Your task to perform on an android device: View the shopping cart on amazon.com. Image 0: 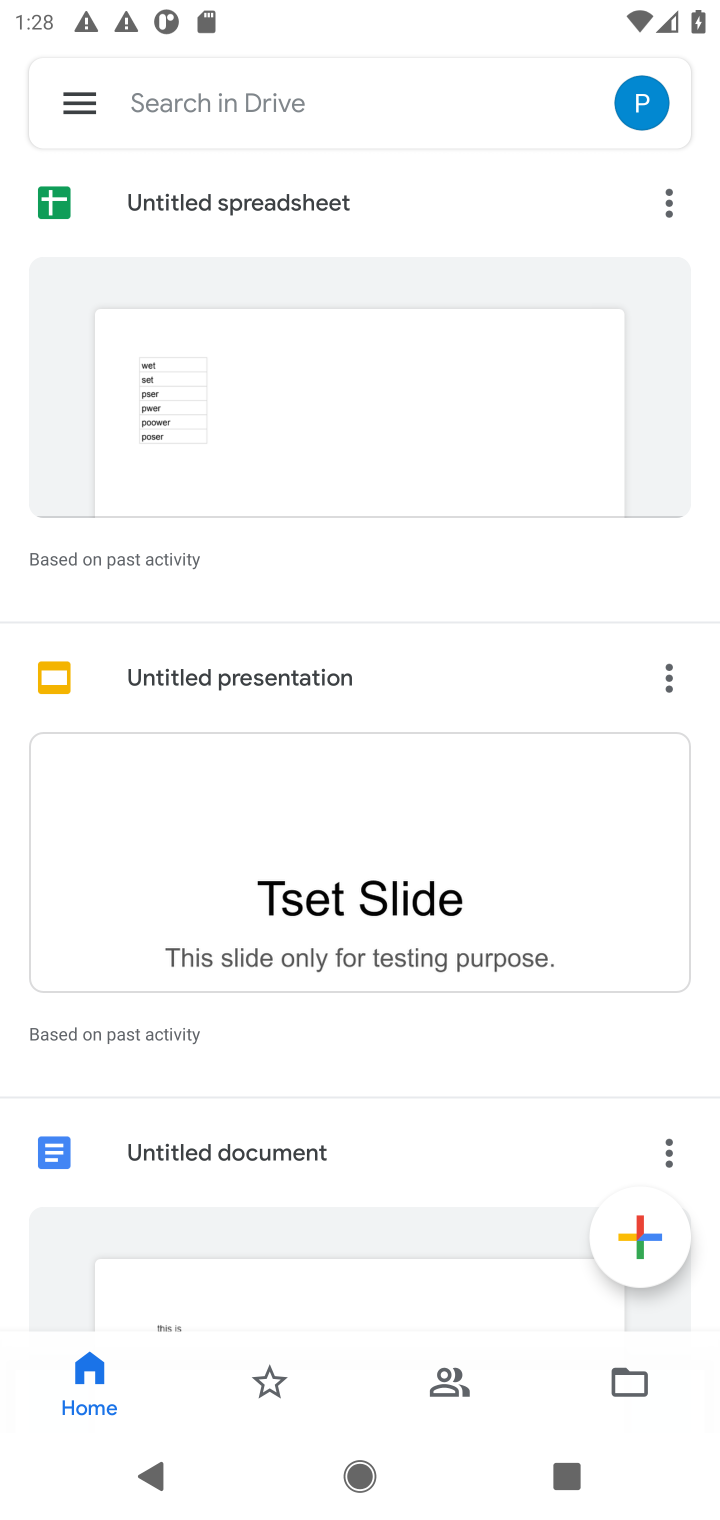
Step 0: press home button
Your task to perform on an android device: View the shopping cart on amazon.com. Image 1: 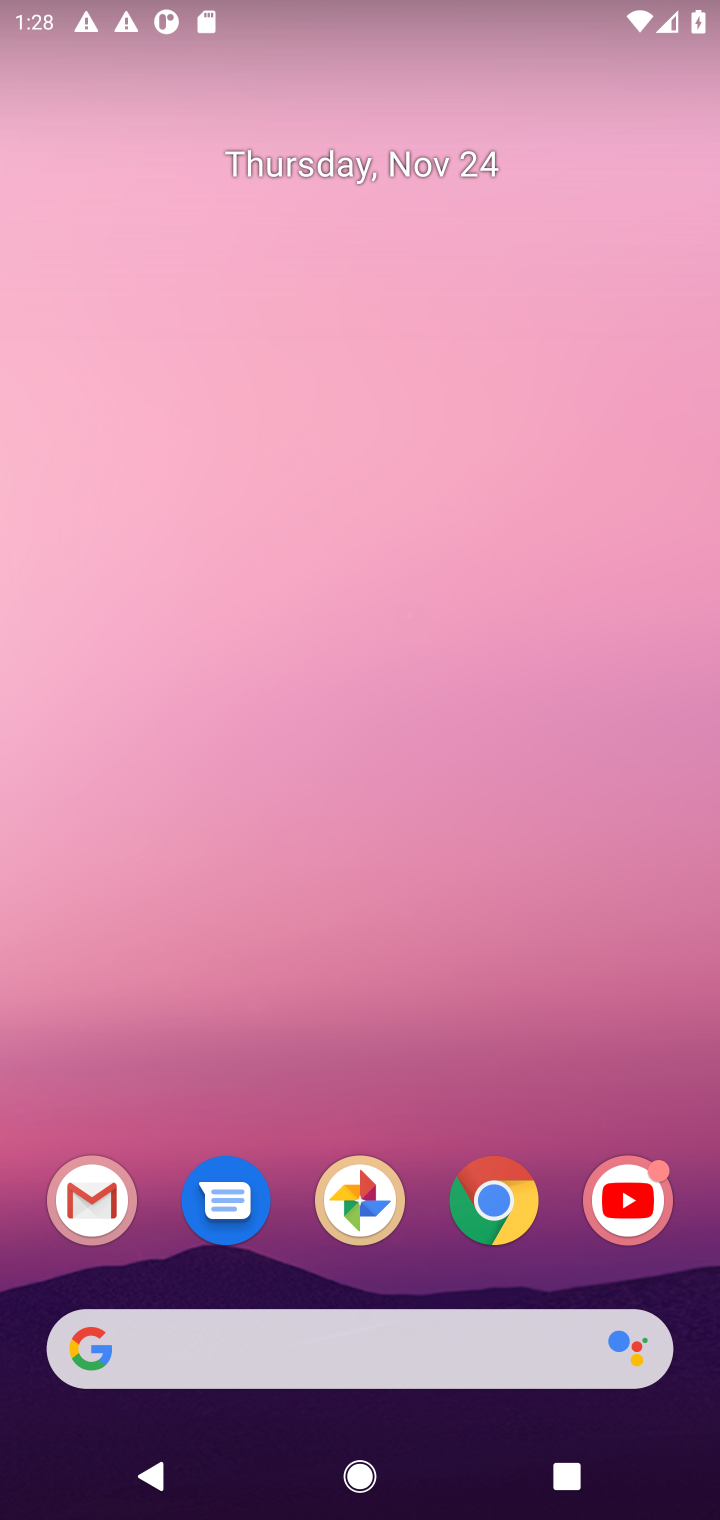
Step 1: click (294, 1387)
Your task to perform on an android device: View the shopping cart on amazon.com. Image 2: 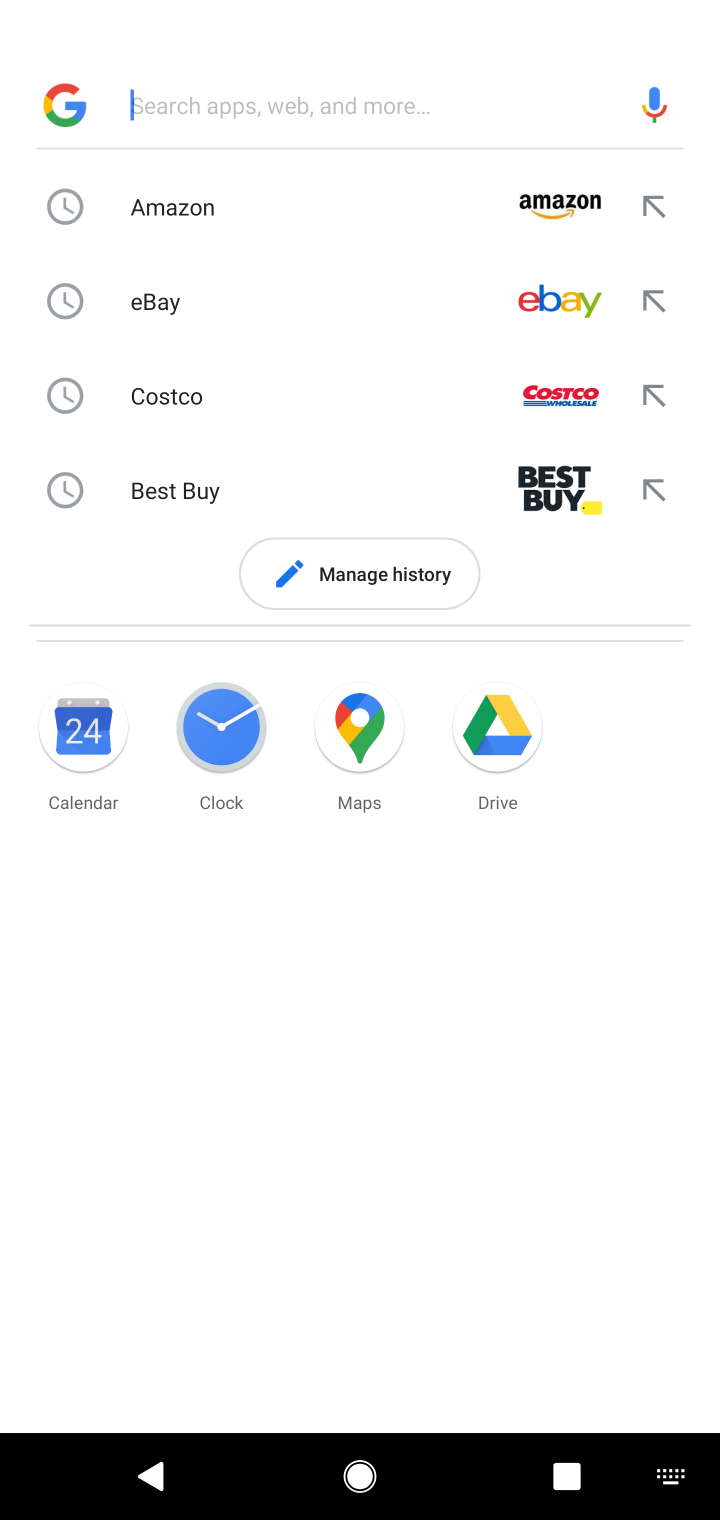
Step 2: type "amazon"
Your task to perform on an android device: View the shopping cart on amazon.com. Image 3: 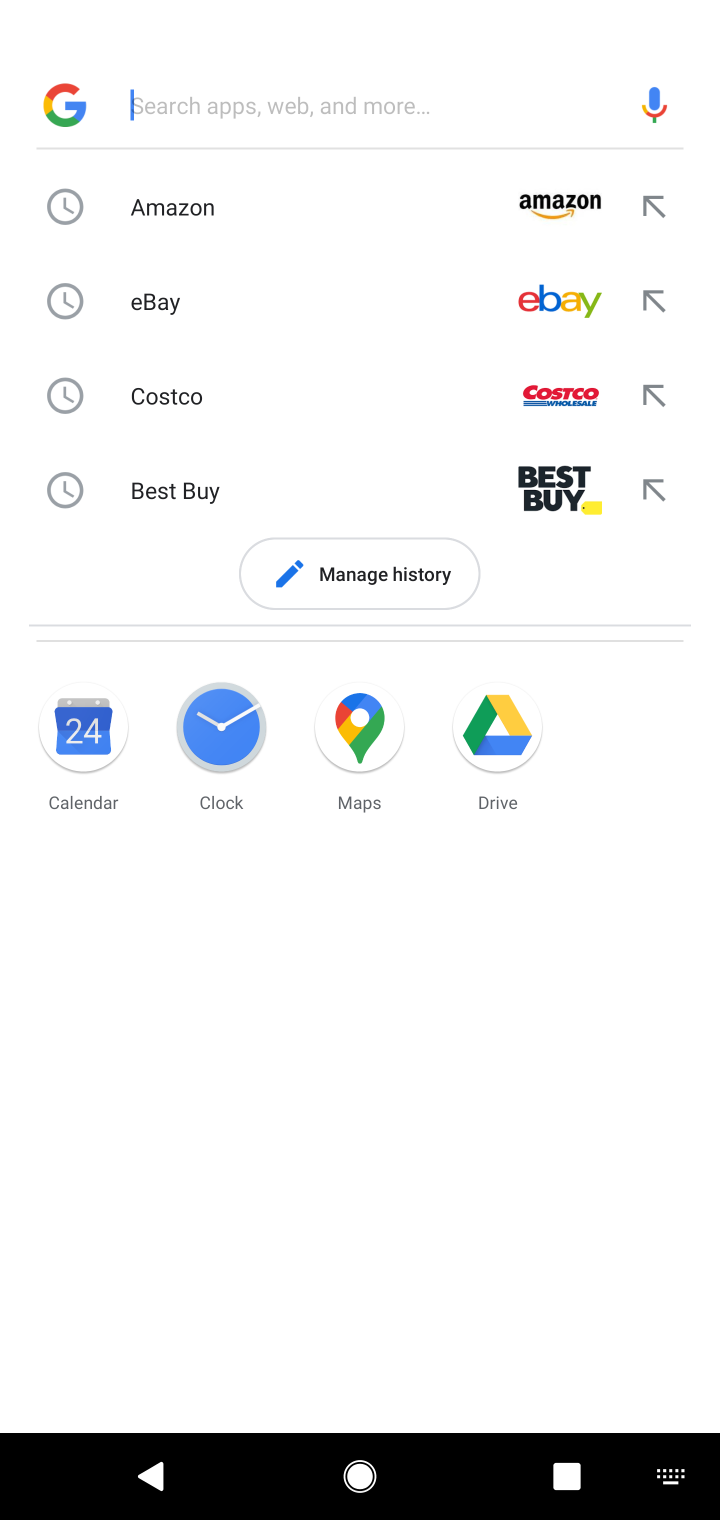
Step 3: click (474, 167)
Your task to perform on an android device: View the shopping cart on amazon.com. Image 4: 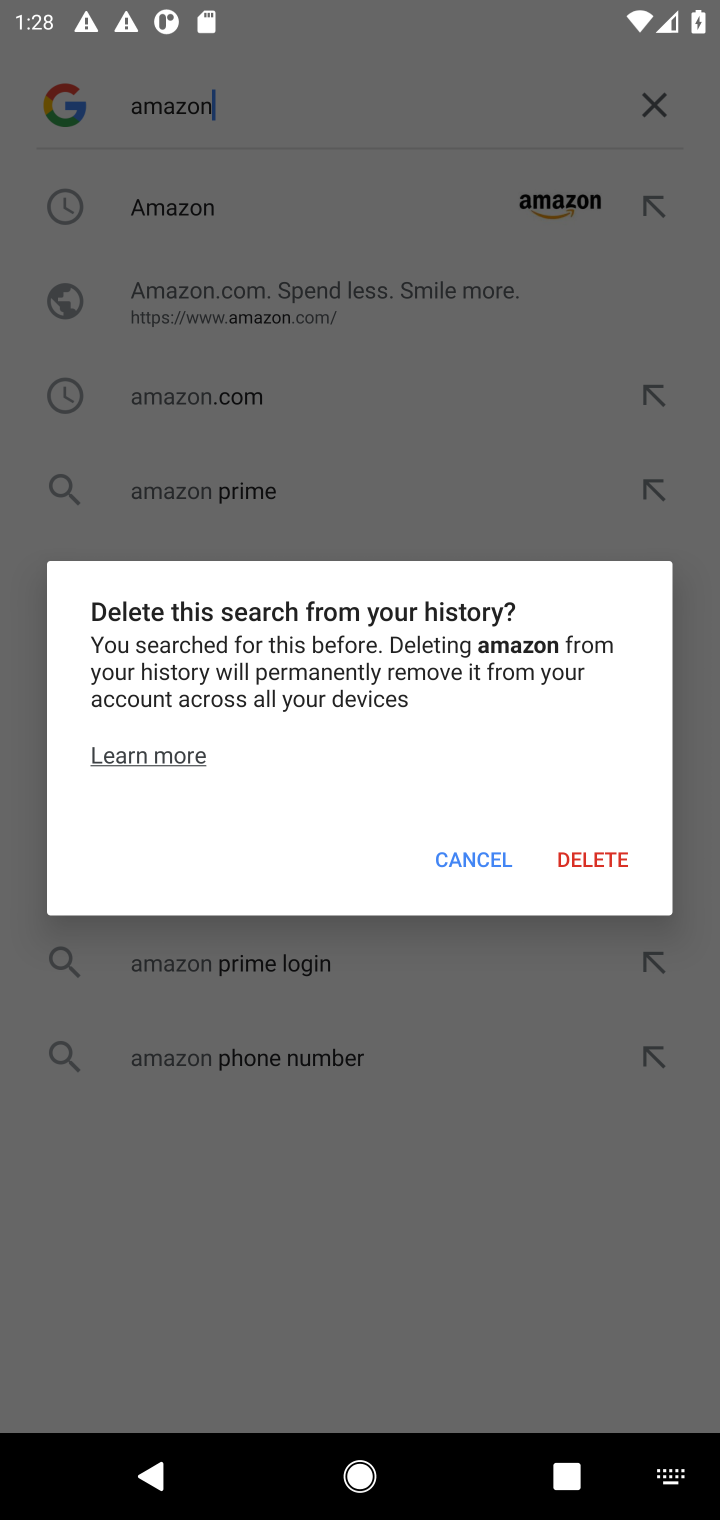
Step 4: press home button
Your task to perform on an android device: View the shopping cart on amazon.com. Image 5: 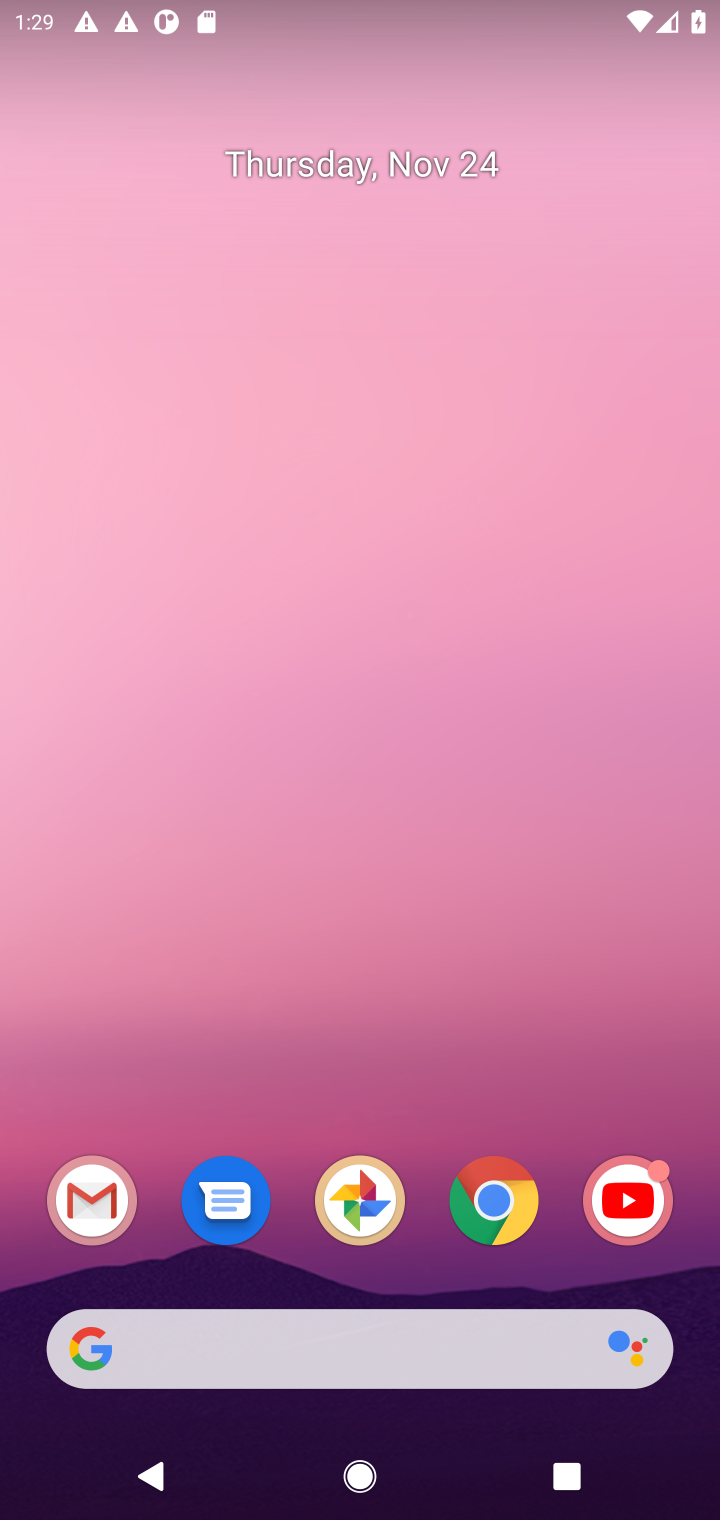
Step 5: click (513, 1309)
Your task to perform on an android device: View the shopping cart on amazon.com. Image 6: 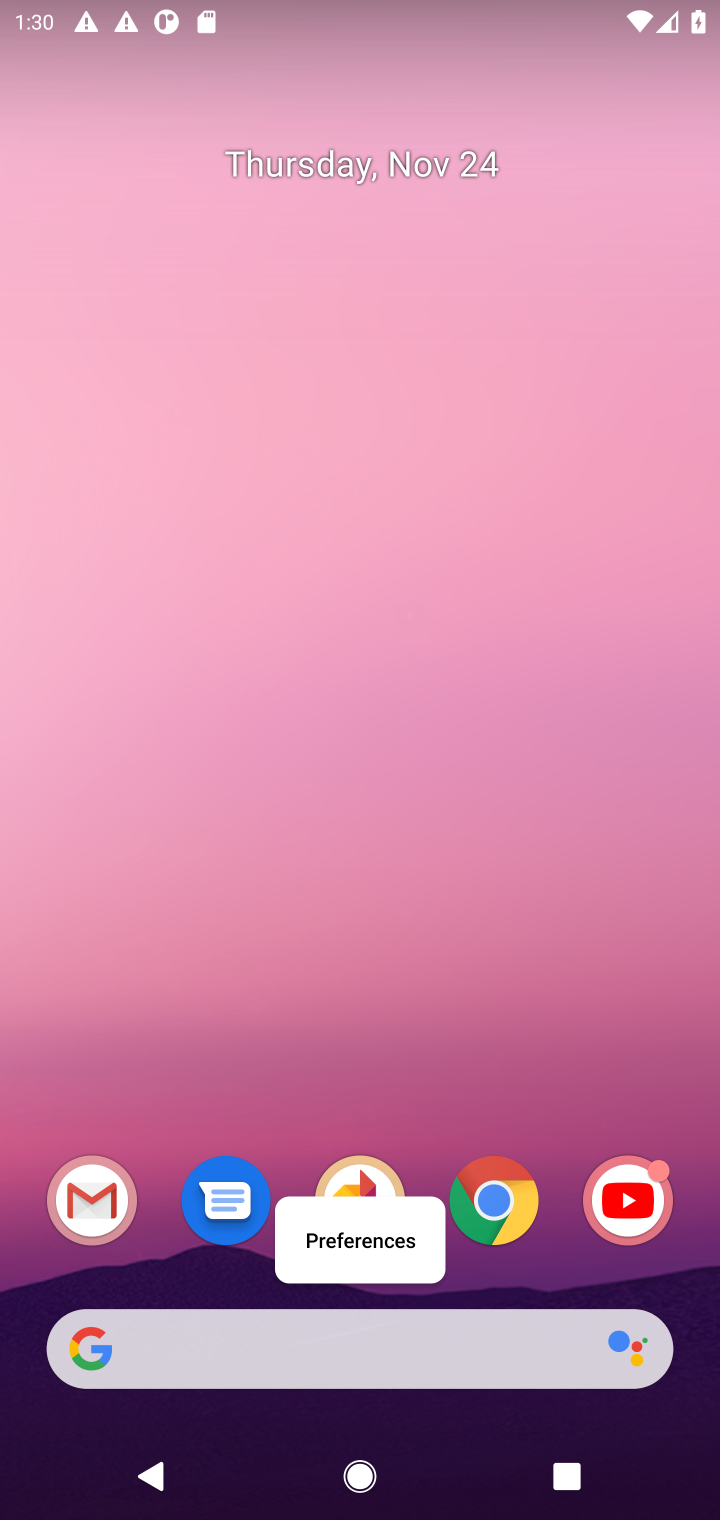
Step 6: click (451, 1323)
Your task to perform on an android device: View the shopping cart on amazon.com. Image 7: 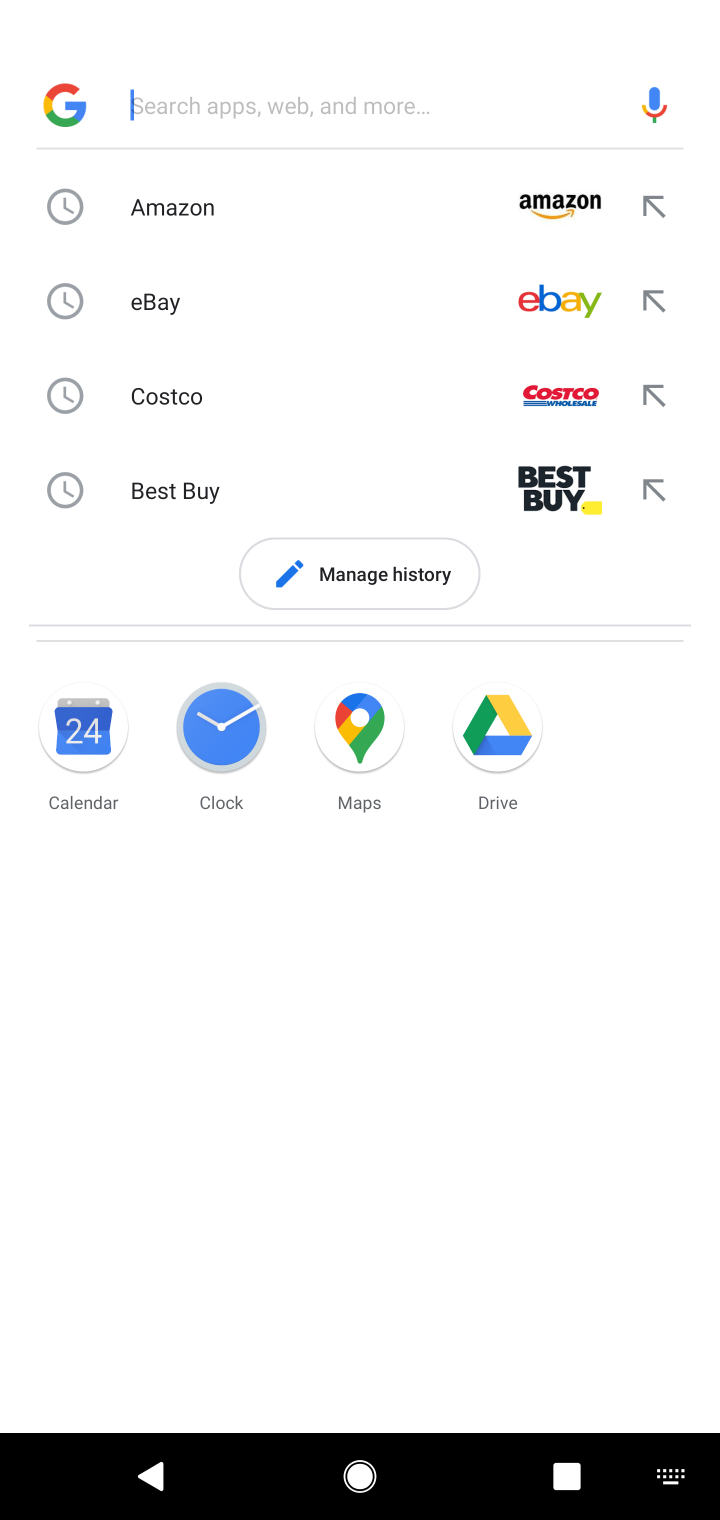
Step 7: click (206, 215)
Your task to perform on an android device: View the shopping cart on amazon.com. Image 8: 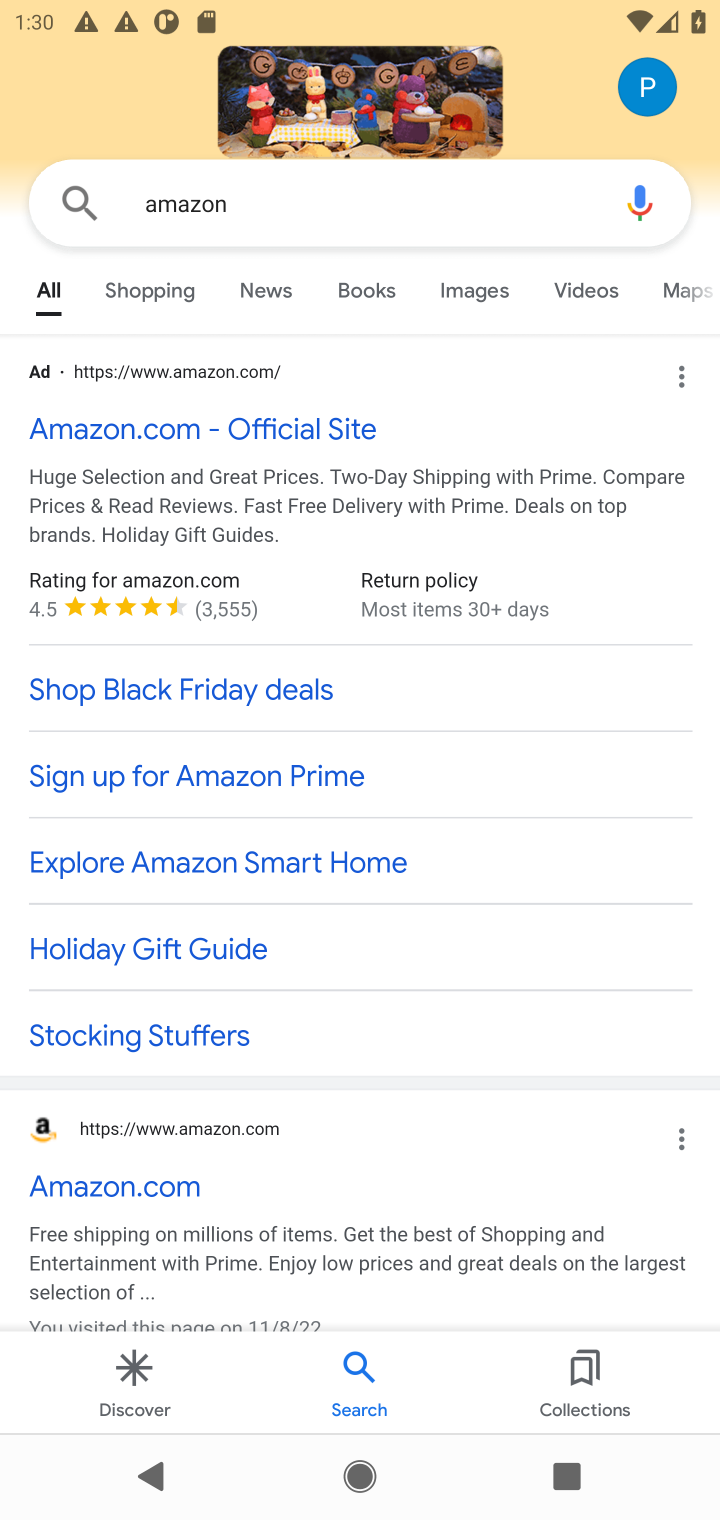
Step 8: click (134, 422)
Your task to perform on an android device: View the shopping cart on amazon.com. Image 9: 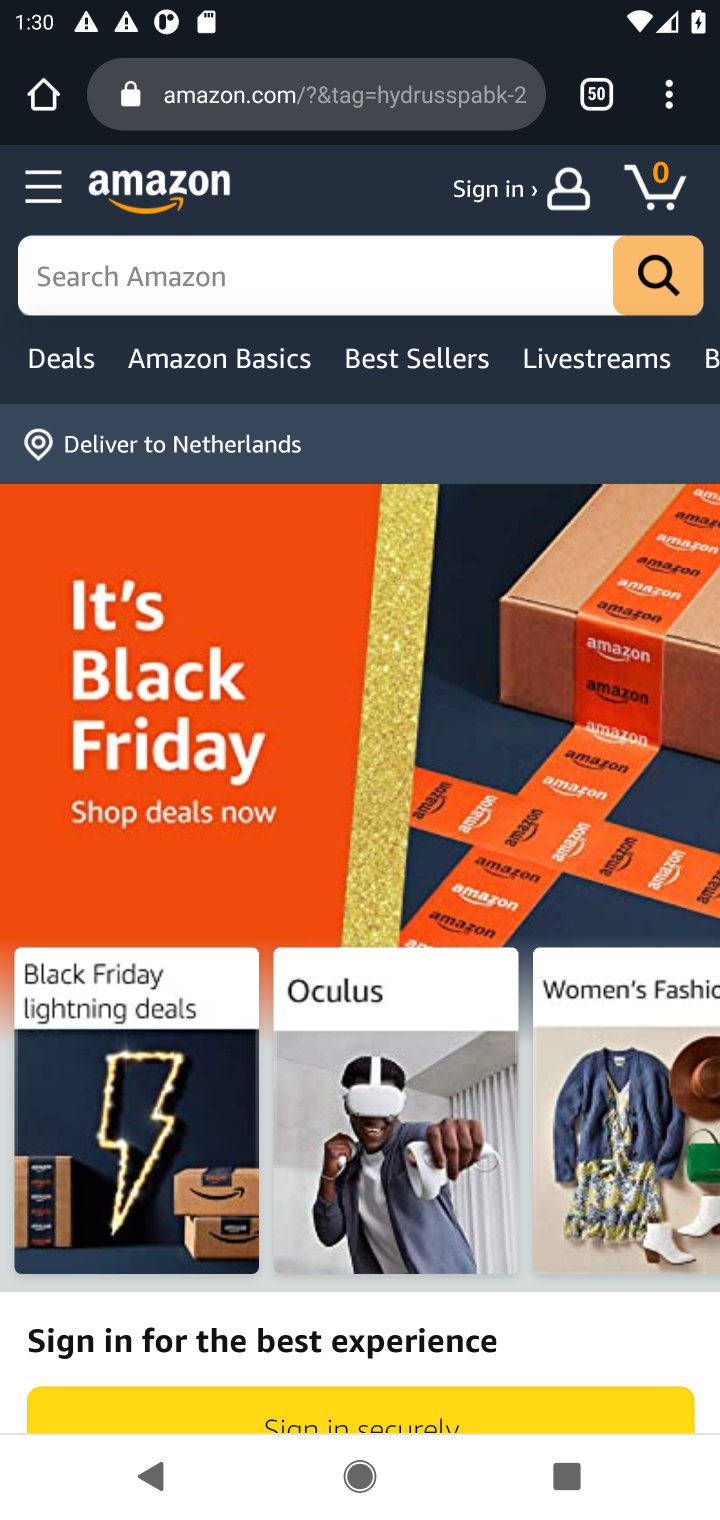
Step 9: click (173, 303)
Your task to perform on an android device: View the shopping cart on amazon.com. Image 10: 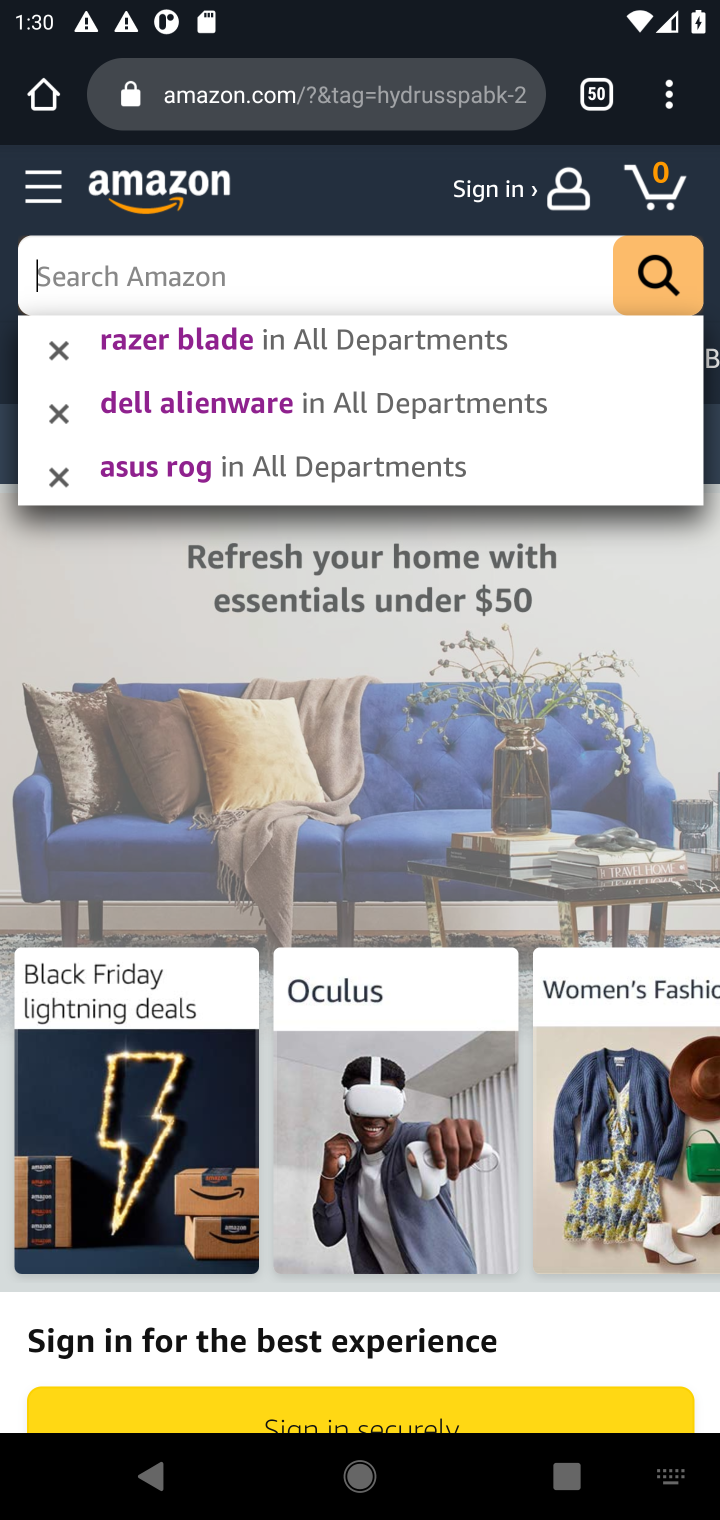
Step 10: click (691, 204)
Your task to perform on an android device: View the shopping cart on amazon.com. Image 11: 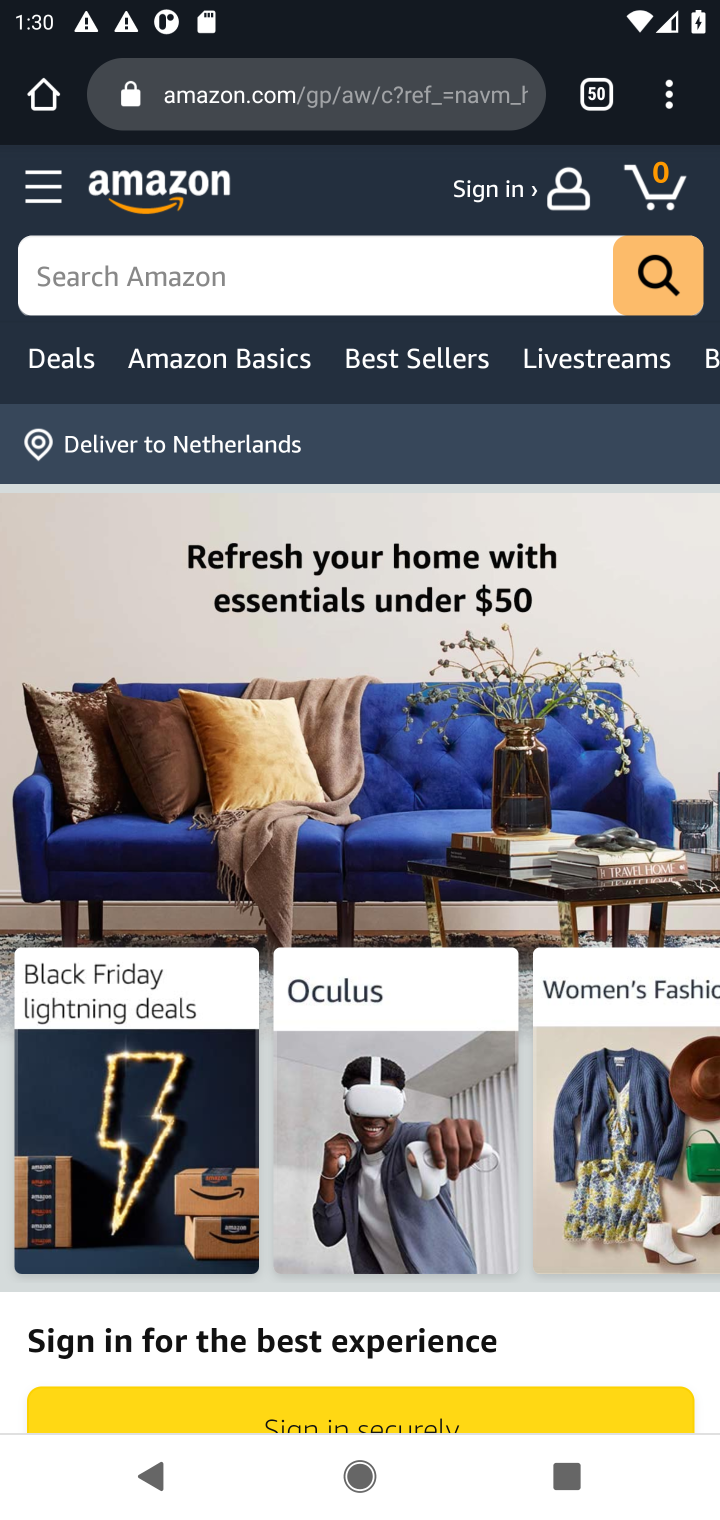
Step 11: task complete